Your task to perform on an android device: Go to Maps Image 0: 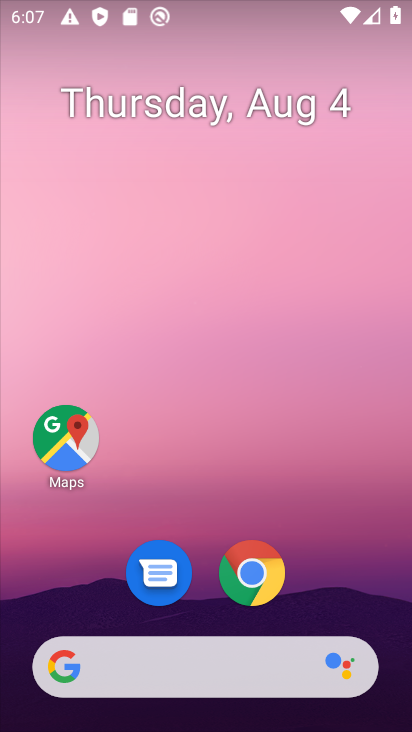
Step 0: press home button
Your task to perform on an android device: Go to Maps Image 1: 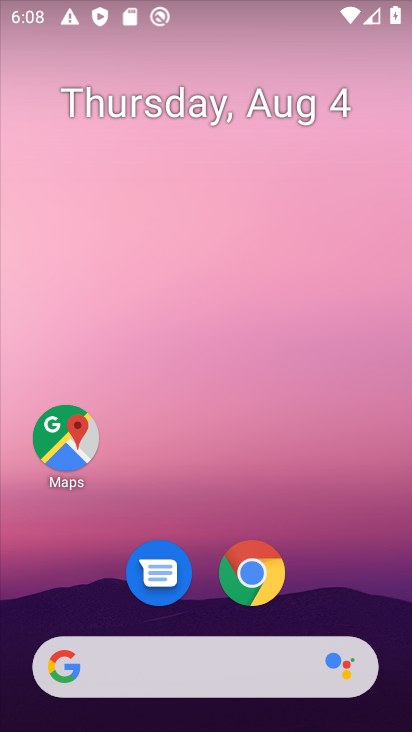
Step 1: click (72, 440)
Your task to perform on an android device: Go to Maps Image 2: 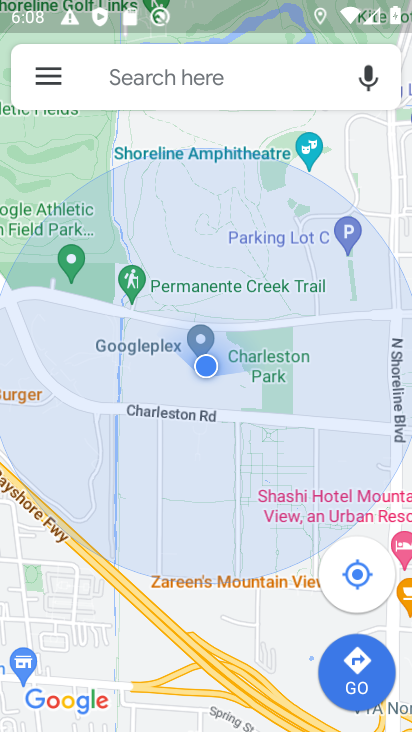
Step 2: task complete